Your task to perform on an android device: open app "Gmail" Image 0: 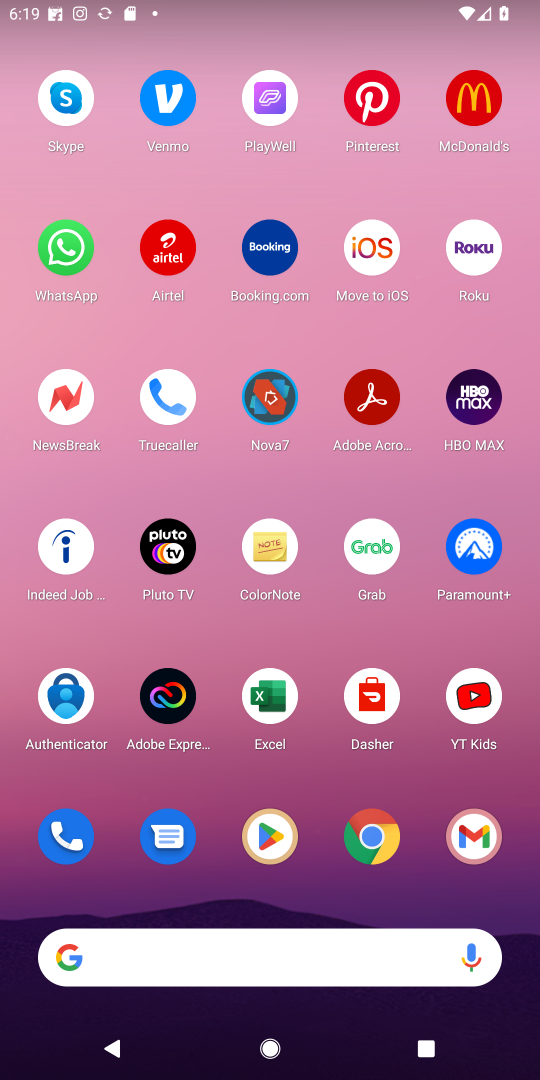
Step 0: click (477, 837)
Your task to perform on an android device: open app "Gmail" Image 1: 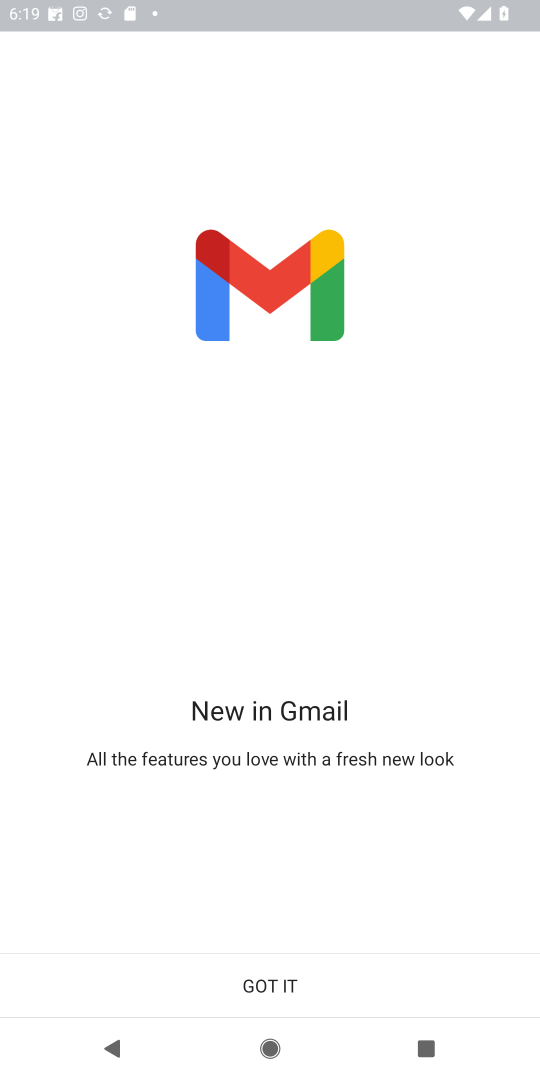
Step 1: click (258, 986)
Your task to perform on an android device: open app "Gmail" Image 2: 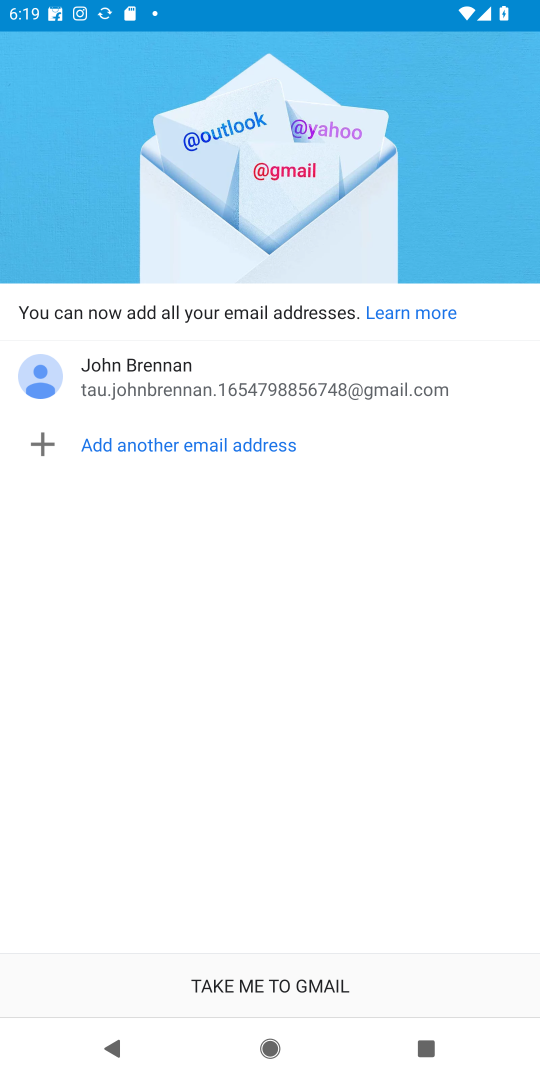
Step 2: click (269, 983)
Your task to perform on an android device: open app "Gmail" Image 3: 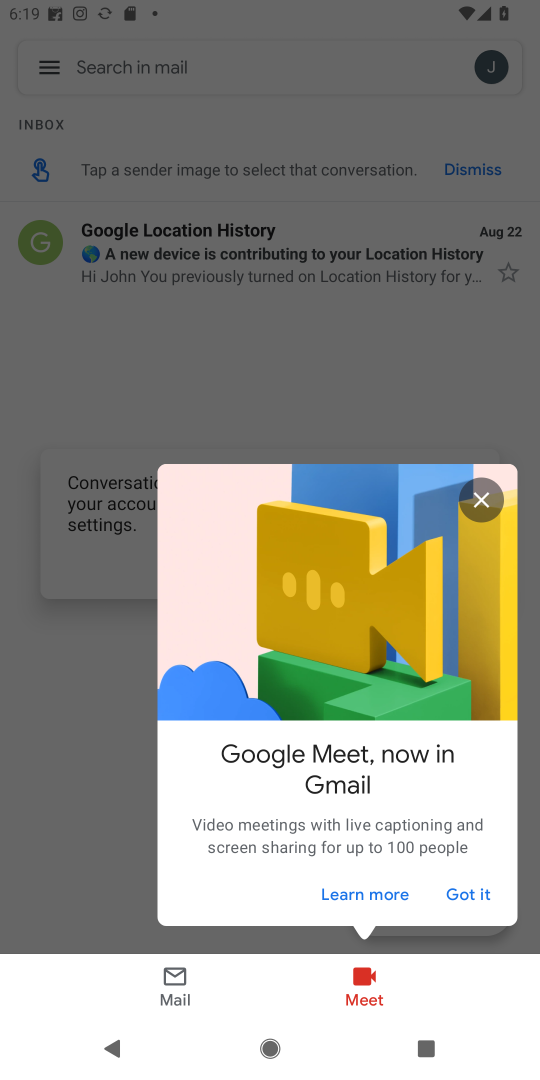
Step 3: task complete